Your task to perform on an android device: change your default location settings in chrome Image 0: 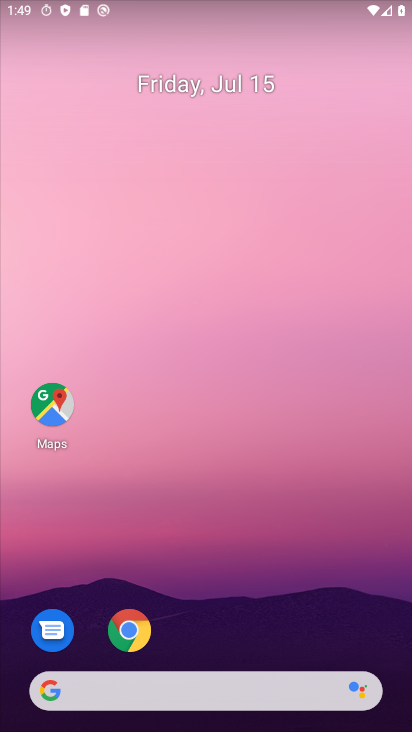
Step 0: click (113, 622)
Your task to perform on an android device: change your default location settings in chrome Image 1: 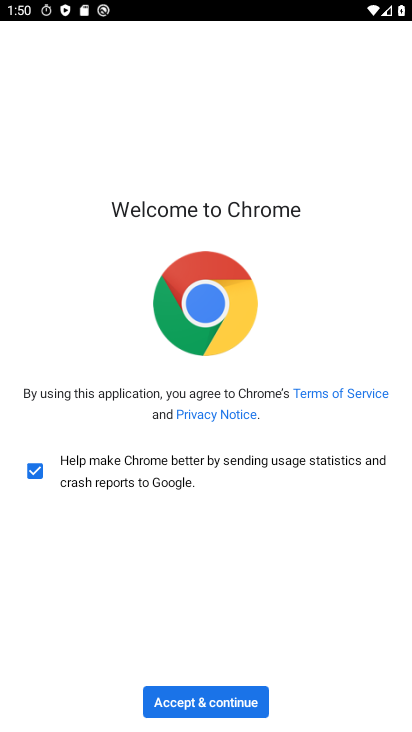
Step 1: click (241, 698)
Your task to perform on an android device: change your default location settings in chrome Image 2: 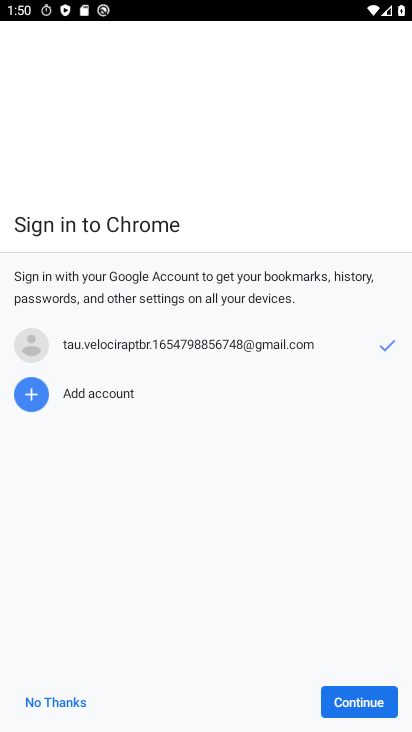
Step 2: click (337, 701)
Your task to perform on an android device: change your default location settings in chrome Image 3: 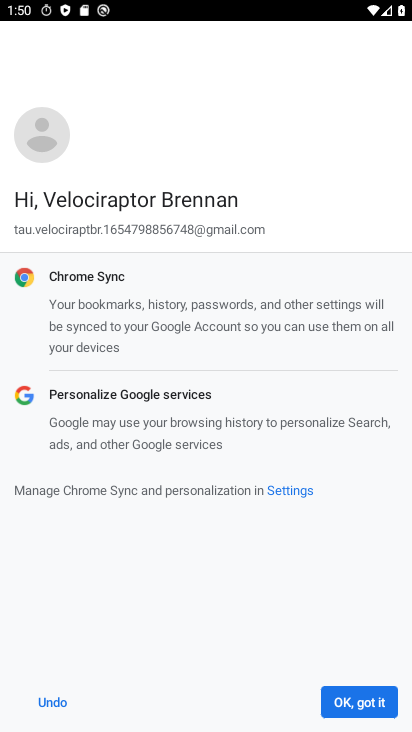
Step 3: click (345, 703)
Your task to perform on an android device: change your default location settings in chrome Image 4: 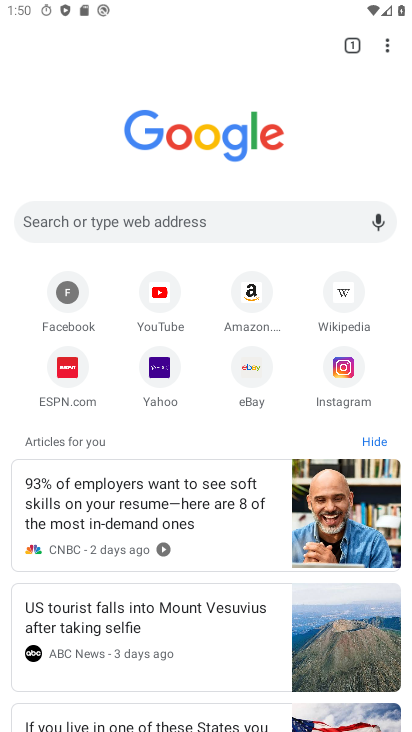
Step 4: click (386, 44)
Your task to perform on an android device: change your default location settings in chrome Image 5: 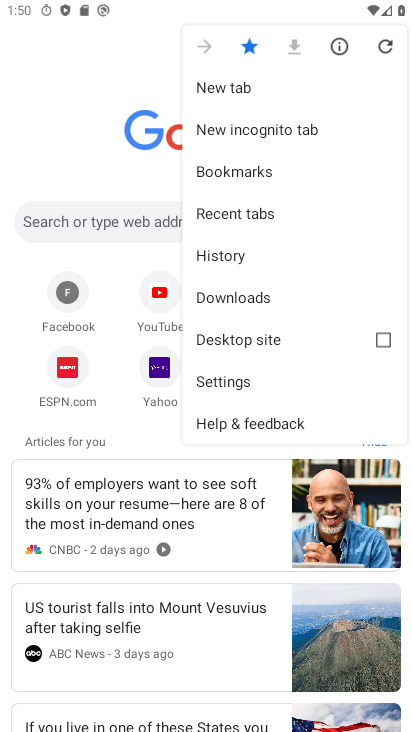
Step 5: click (238, 391)
Your task to perform on an android device: change your default location settings in chrome Image 6: 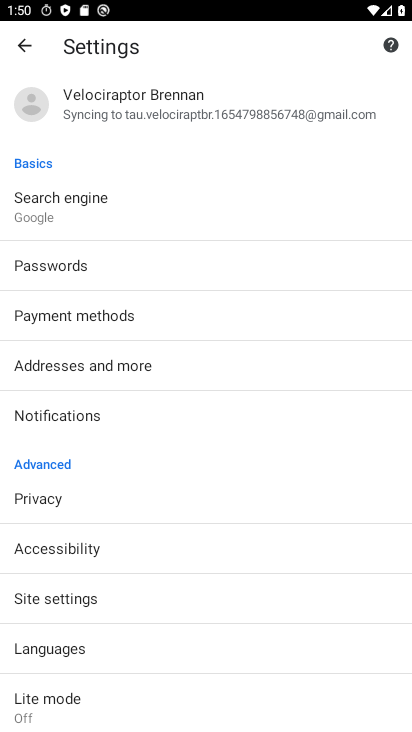
Step 6: click (93, 601)
Your task to perform on an android device: change your default location settings in chrome Image 7: 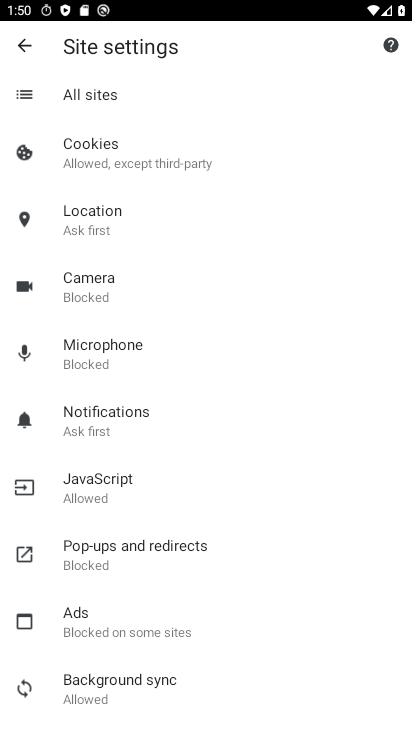
Step 7: click (164, 219)
Your task to perform on an android device: change your default location settings in chrome Image 8: 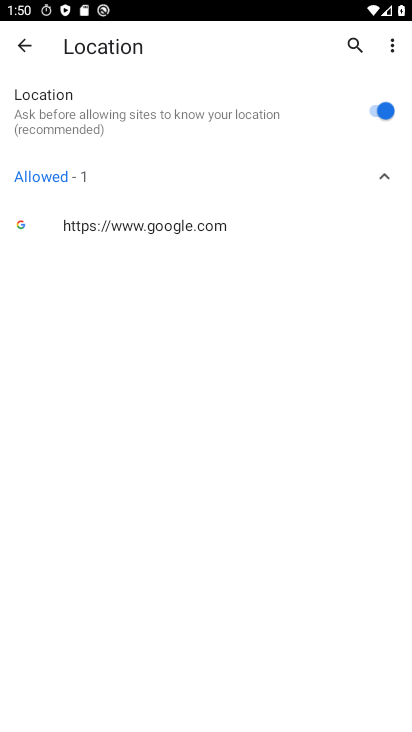
Step 8: click (371, 112)
Your task to perform on an android device: change your default location settings in chrome Image 9: 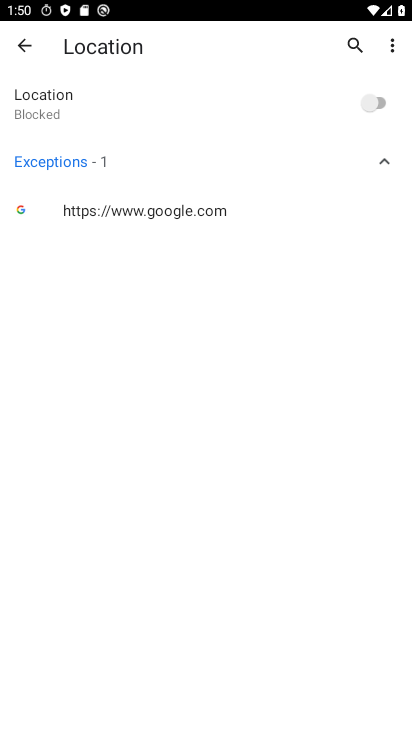
Step 9: task complete